Your task to perform on an android device: Show me the alarms in the clock app Image 0: 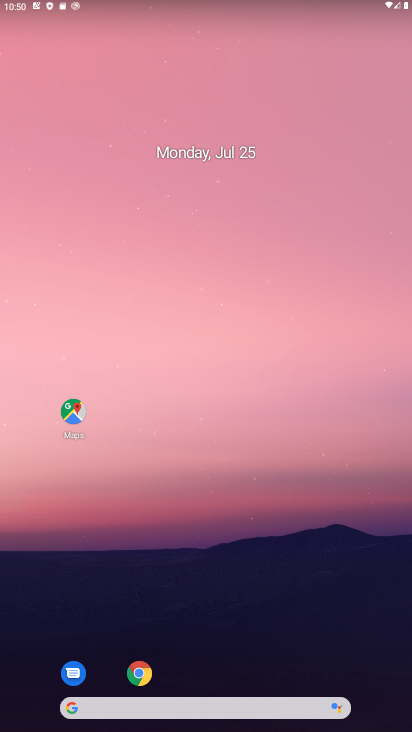
Step 0: drag from (218, 672) to (207, 113)
Your task to perform on an android device: Show me the alarms in the clock app Image 1: 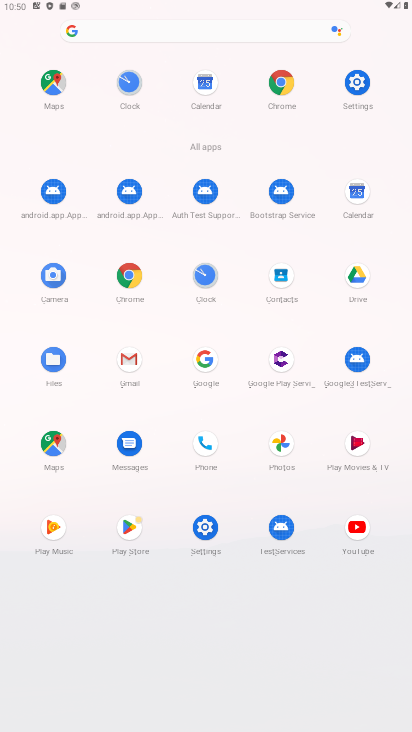
Step 1: click (207, 273)
Your task to perform on an android device: Show me the alarms in the clock app Image 2: 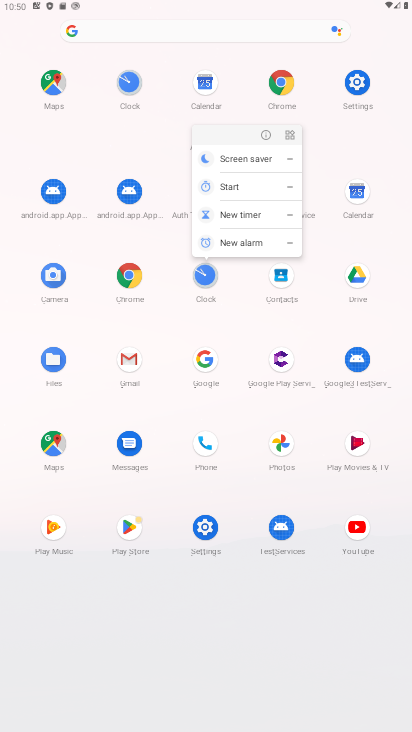
Step 2: click (202, 266)
Your task to perform on an android device: Show me the alarms in the clock app Image 3: 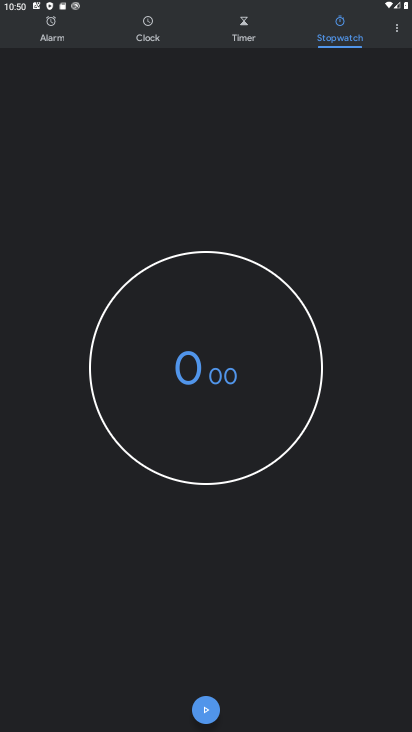
Step 3: click (49, 17)
Your task to perform on an android device: Show me the alarms in the clock app Image 4: 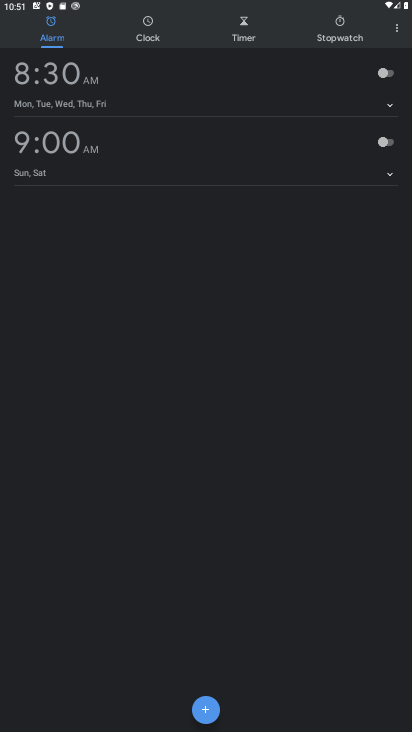
Step 4: click (382, 76)
Your task to perform on an android device: Show me the alarms in the clock app Image 5: 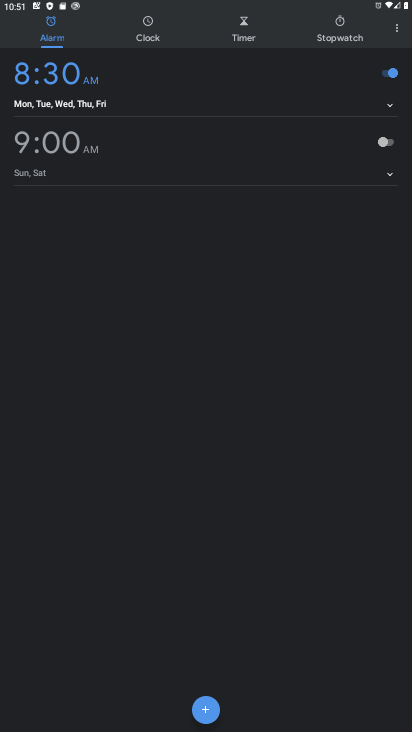
Step 5: task complete